Your task to perform on an android device: all mails in gmail Image 0: 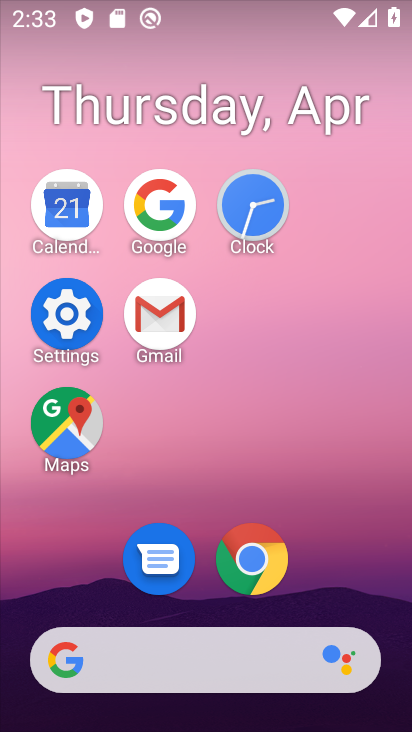
Step 0: click (165, 323)
Your task to perform on an android device: all mails in gmail Image 1: 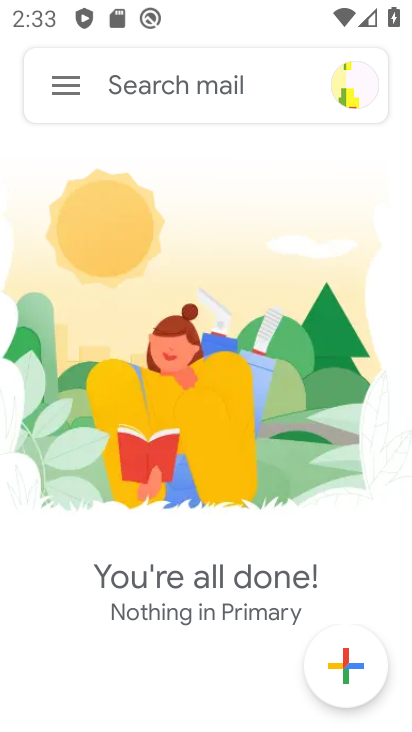
Step 1: click (65, 94)
Your task to perform on an android device: all mails in gmail Image 2: 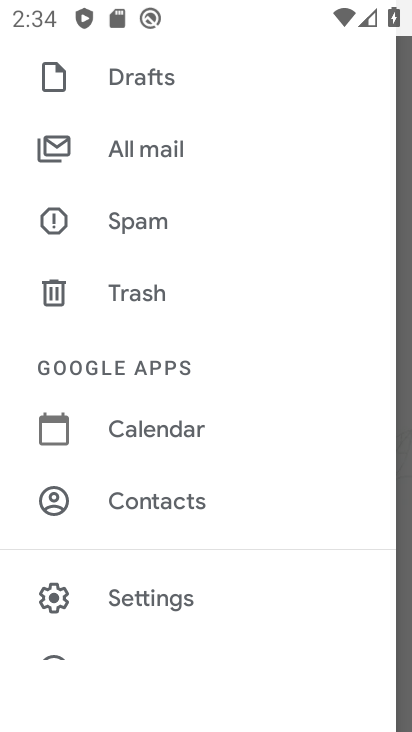
Step 2: click (173, 149)
Your task to perform on an android device: all mails in gmail Image 3: 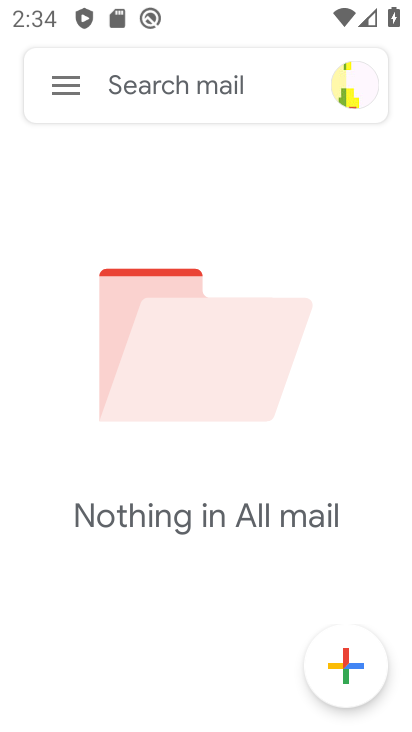
Step 3: task complete